Your task to perform on an android device: open chrome and create a bookmark for the current page Image 0: 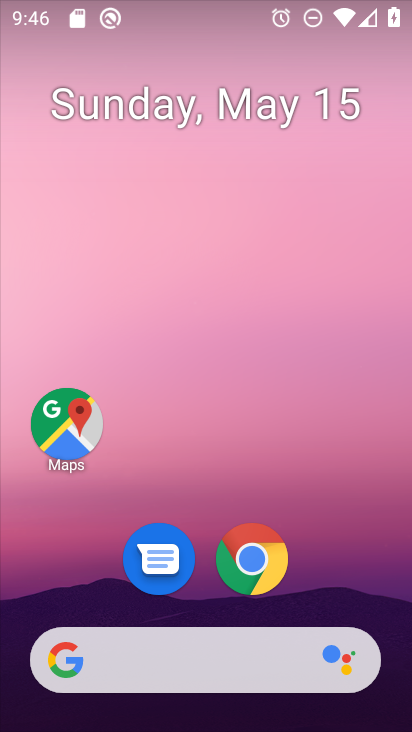
Step 0: click (277, 567)
Your task to perform on an android device: open chrome and create a bookmark for the current page Image 1: 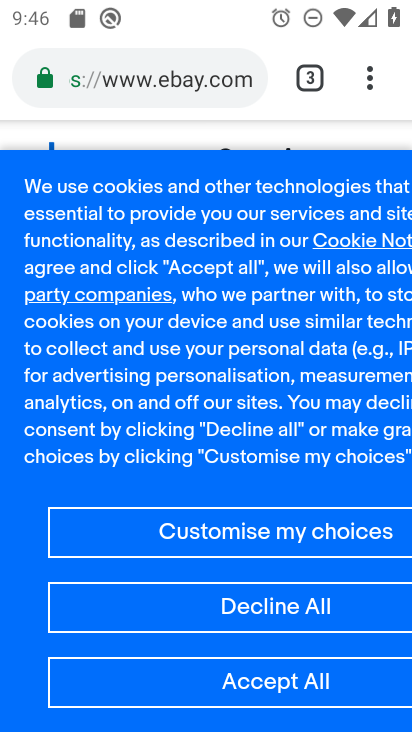
Step 1: click (354, 69)
Your task to perform on an android device: open chrome and create a bookmark for the current page Image 2: 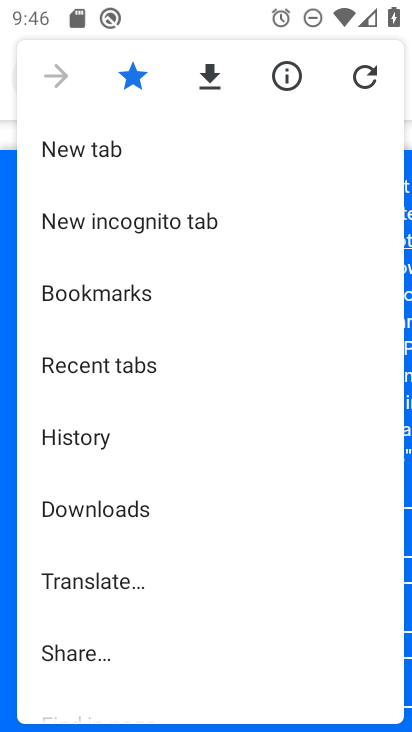
Step 2: click (2, 82)
Your task to perform on an android device: open chrome and create a bookmark for the current page Image 3: 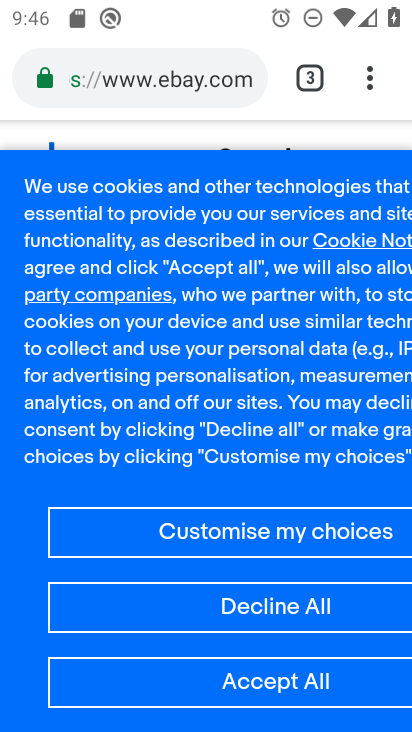
Step 3: click (178, 91)
Your task to perform on an android device: open chrome and create a bookmark for the current page Image 4: 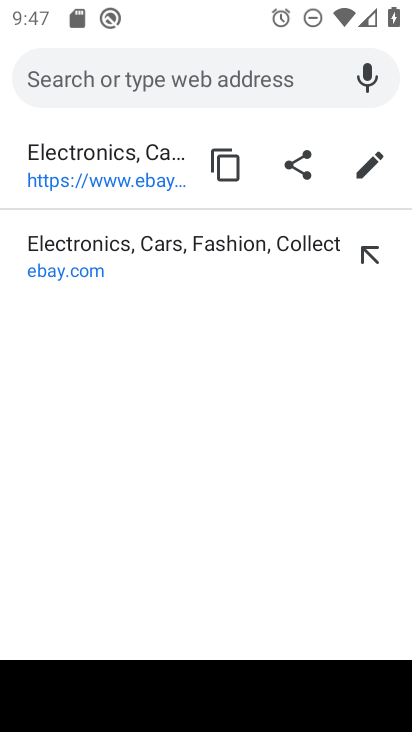
Step 4: type "youtube.com"
Your task to perform on an android device: open chrome and create a bookmark for the current page Image 5: 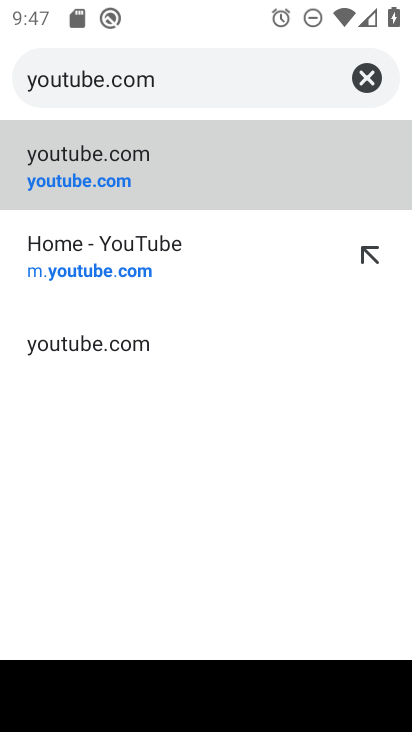
Step 5: click (145, 171)
Your task to perform on an android device: open chrome and create a bookmark for the current page Image 6: 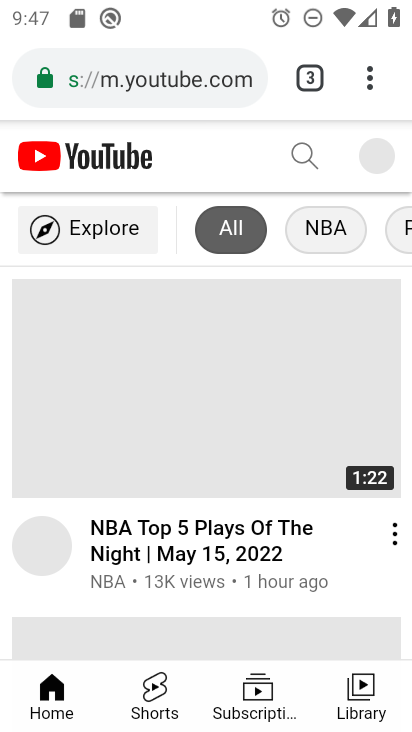
Step 6: click (366, 74)
Your task to perform on an android device: open chrome and create a bookmark for the current page Image 7: 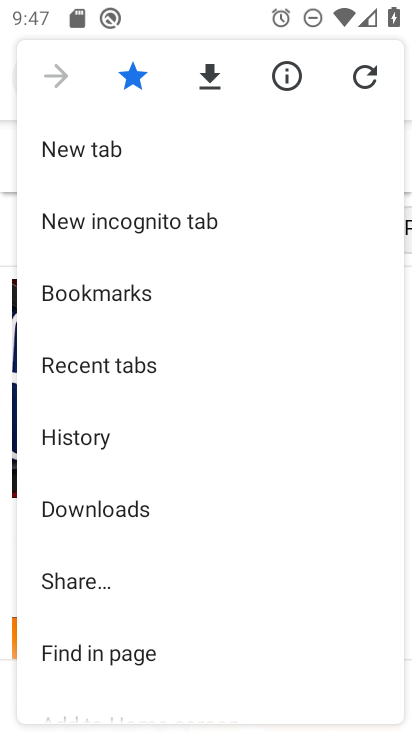
Step 7: task complete